Your task to perform on an android device: toggle data saver in the chrome app Image 0: 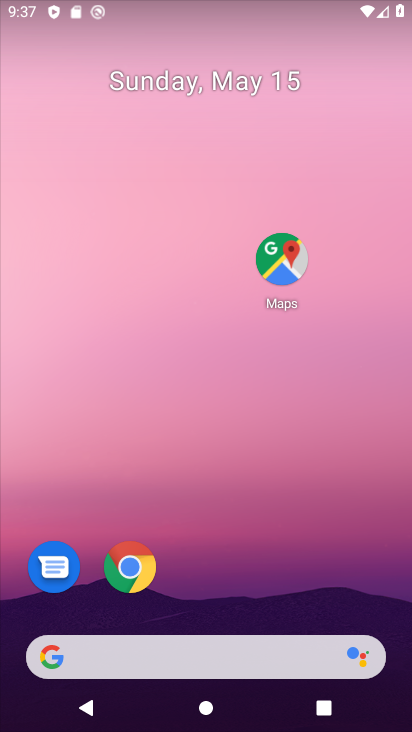
Step 0: drag from (232, 583) to (220, 149)
Your task to perform on an android device: toggle data saver in the chrome app Image 1: 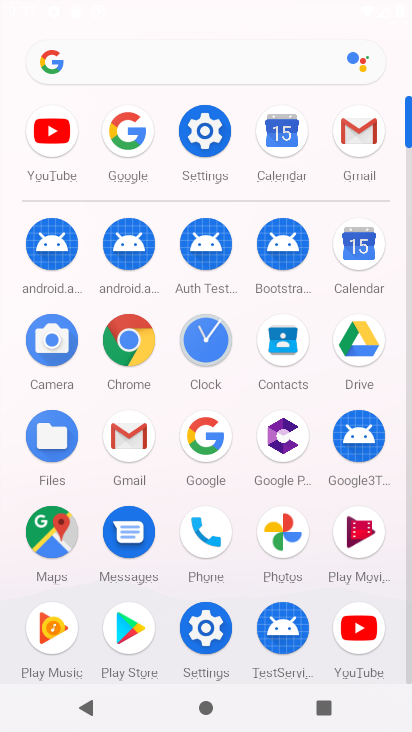
Step 1: click (131, 338)
Your task to perform on an android device: toggle data saver in the chrome app Image 2: 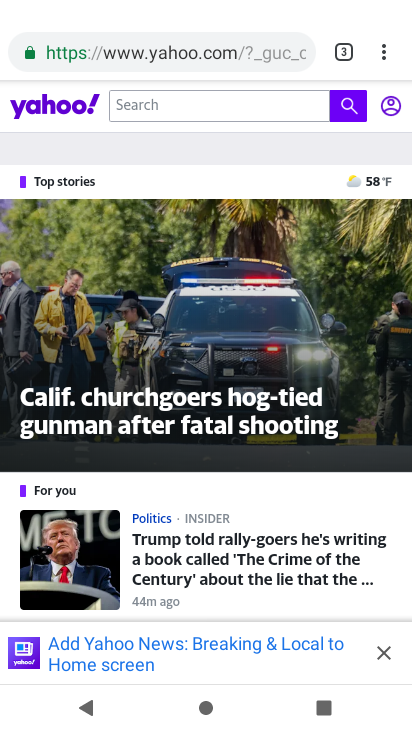
Step 2: click (378, 63)
Your task to perform on an android device: toggle data saver in the chrome app Image 3: 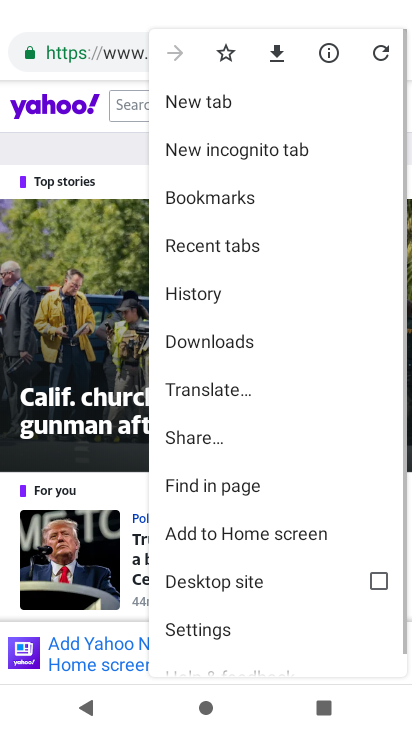
Step 3: click (230, 615)
Your task to perform on an android device: toggle data saver in the chrome app Image 4: 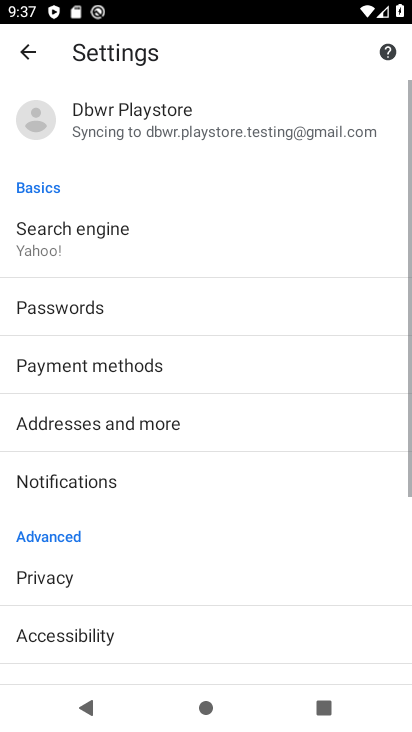
Step 4: drag from (210, 579) to (182, 175)
Your task to perform on an android device: toggle data saver in the chrome app Image 5: 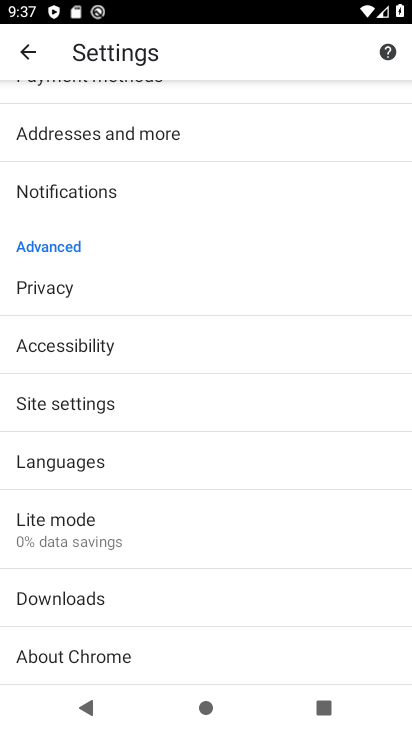
Step 5: click (106, 536)
Your task to perform on an android device: toggle data saver in the chrome app Image 6: 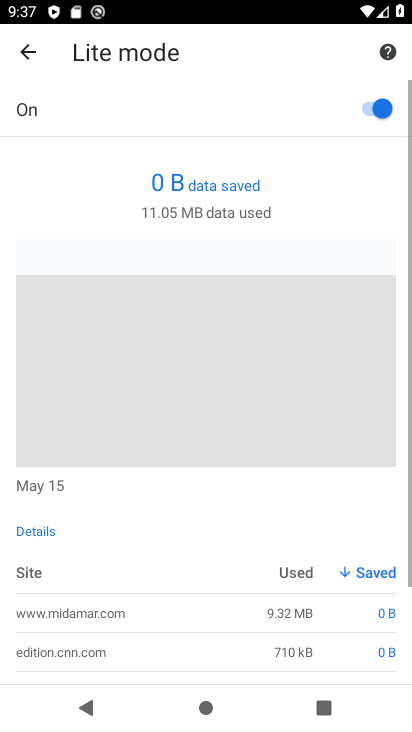
Step 6: click (376, 112)
Your task to perform on an android device: toggle data saver in the chrome app Image 7: 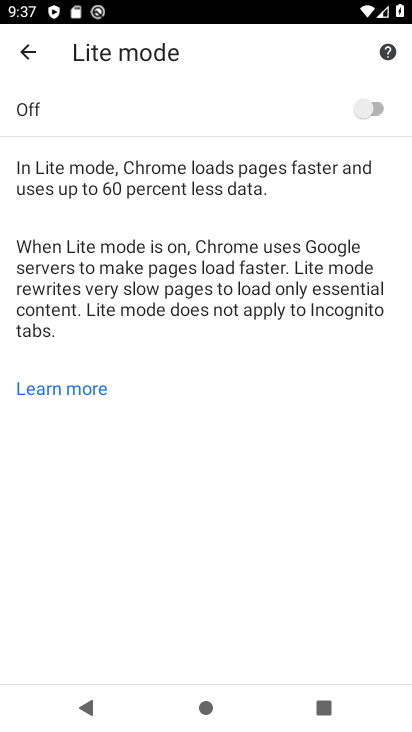
Step 7: task complete